Your task to perform on an android device: Do I have any events today? Image 0: 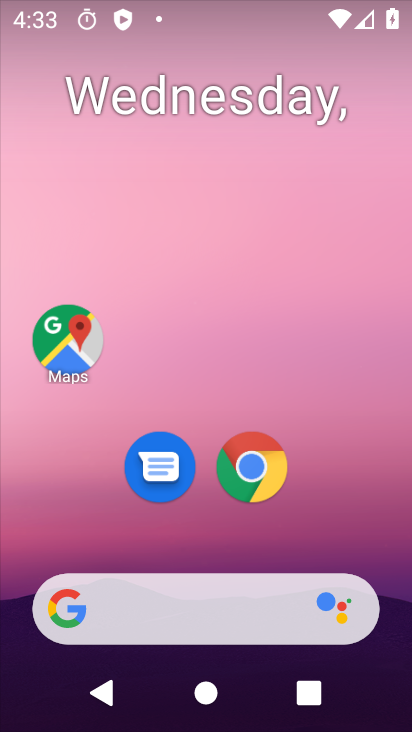
Step 0: drag from (398, 609) to (395, 250)
Your task to perform on an android device: Do I have any events today? Image 1: 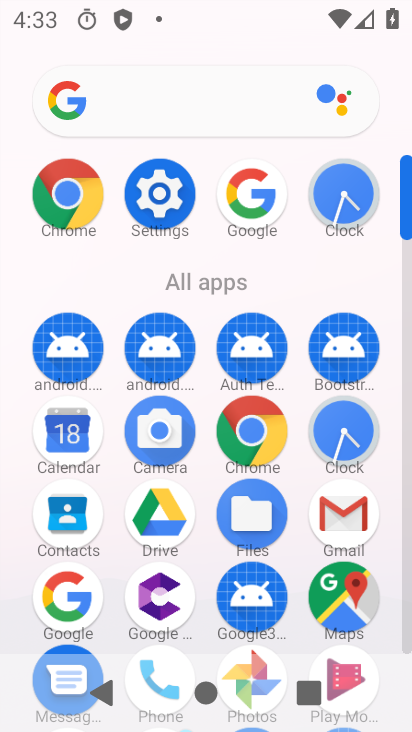
Step 1: click (67, 431)
Your task to perform on an android device: Do I have any events today? Image 2: 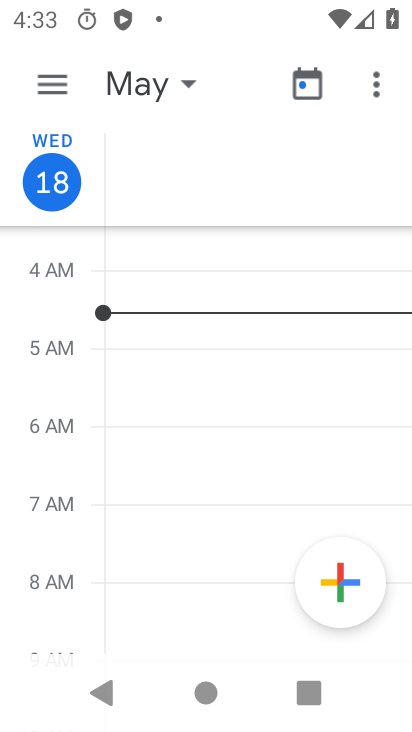
Step 2: click (179, 80)
Your task to perform on an android device: Do I have any events today? Image 3: 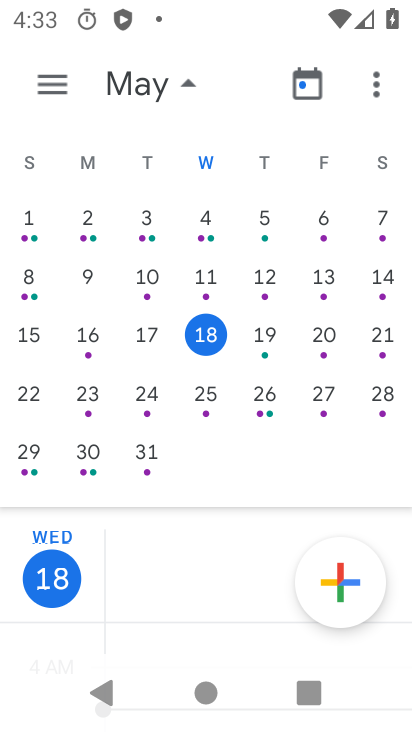
Step 3: click (201, 333)
Your task to perform on an android device: Do I have any events today? Image 4: 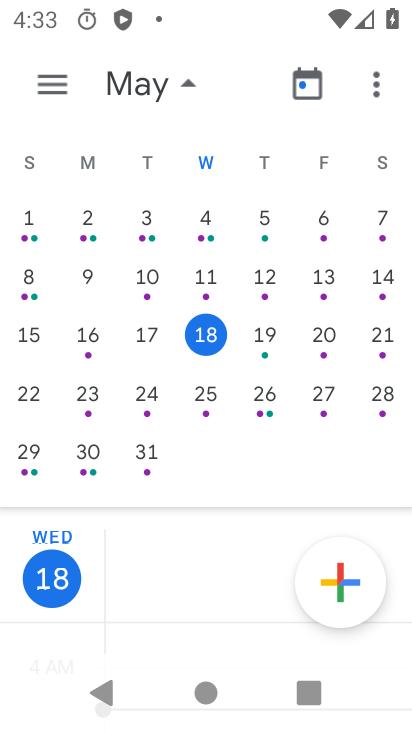
Step 4: click (204, 331)
Your task to perform on an android device: Do I have any events today? Image 5: 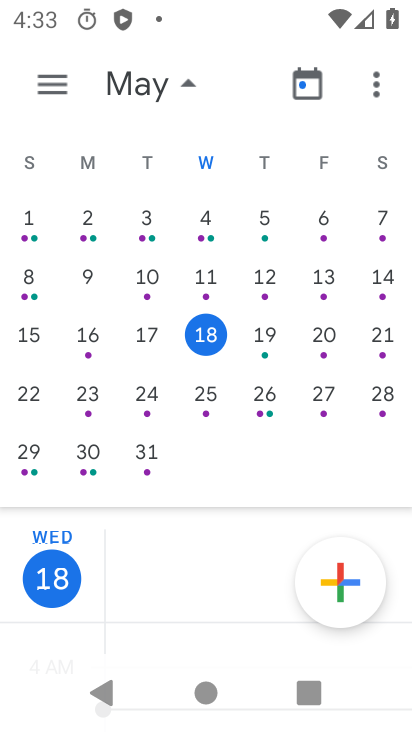
Step 5: task complete